Your task to perform on an android device: Go to Yahoo.com Image 0: 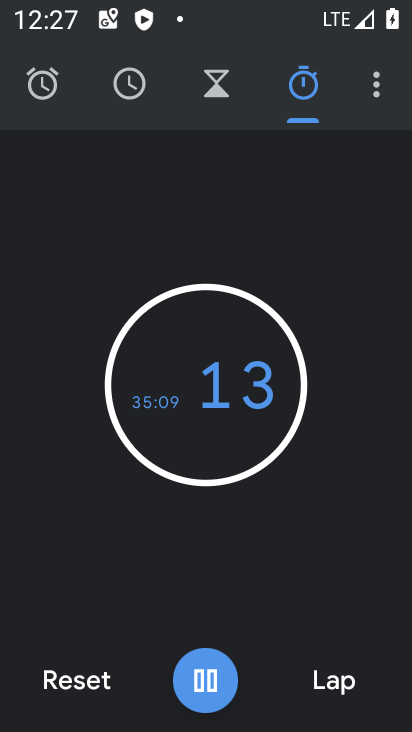
Step 0: press home button
Your task to perform on an android device: Go to Yahoo.com Image 1: 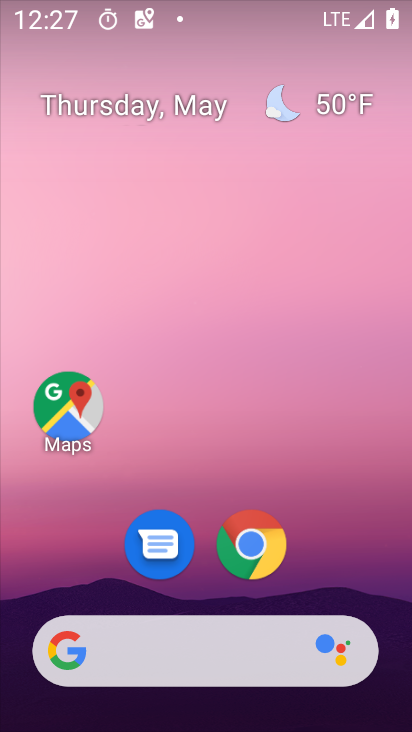
Step 1: click (246, 545)
Your task to perform on an android device: Go to Yahoo.com Image 2: 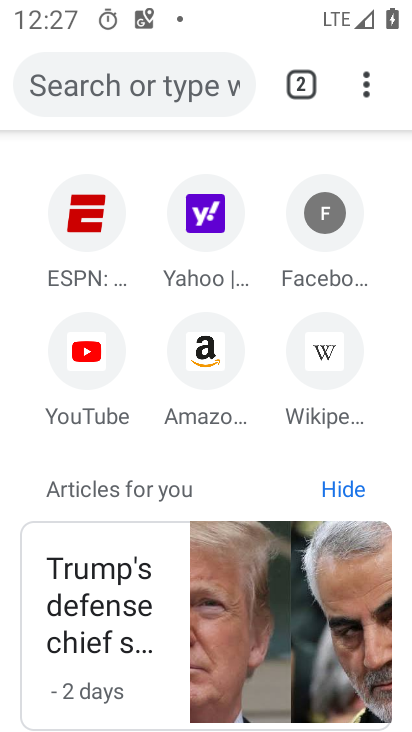
Step 2: click (208, 240)
Your task to perform on an android device: Go to Yahoo.com Image 3: 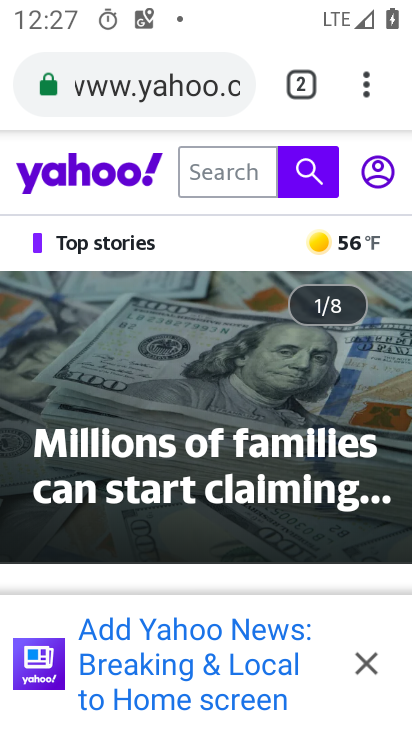
Step 3: task complete